Your task to perform on an android device: Show me popular games on the Play Store Image 0: 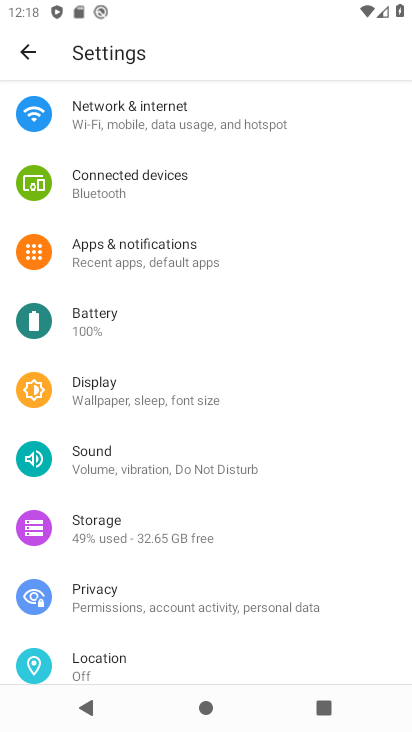
Step 0: drag from (282, 553) to (212, 223)
Your task to perform on an android device: Show me popular games on the Play Store Image 1: 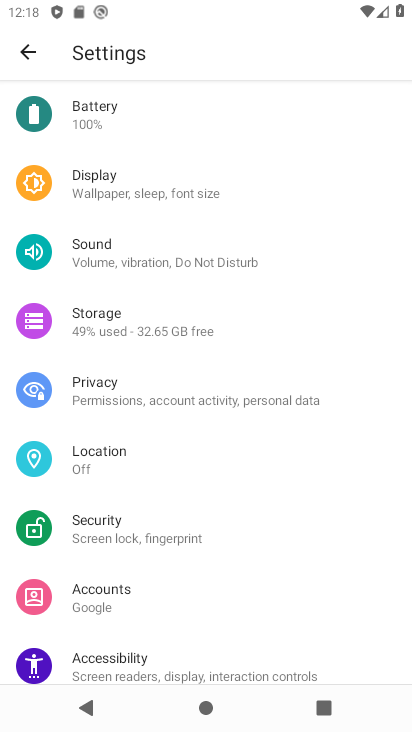
Step 1: press home button
Your task to perform on an android device: Show me popular games on the Play Store Image 2: 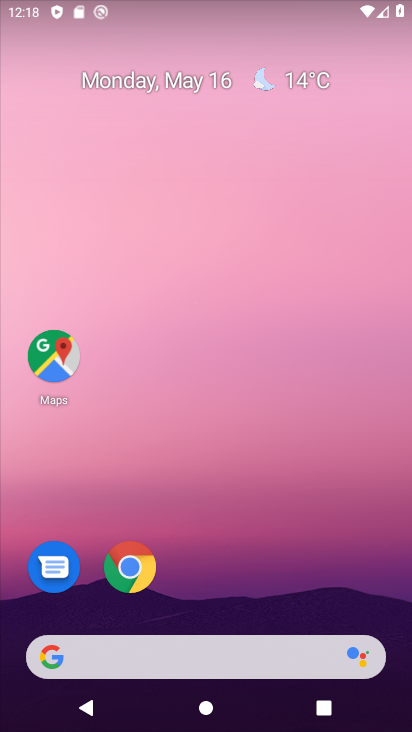
Step 2: drag from (263, 591) to (152, 182)
Your task to perform on an android device: Show me popular games on the Play Store Image 3: 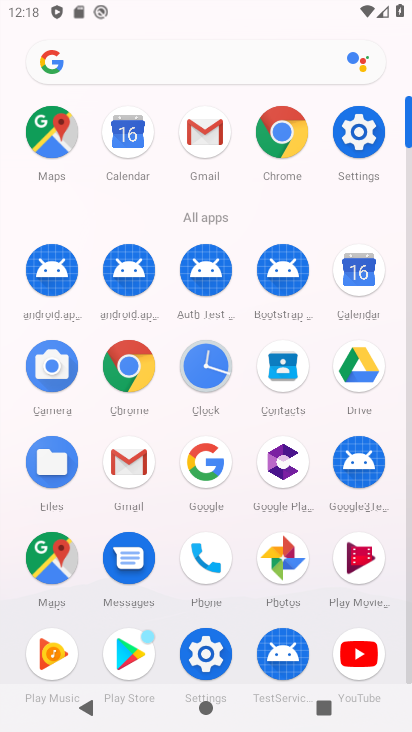
Step 3: drag from (232, 571) to (148, 263)
Your task to perform on an android device: Show me popular games on the Play Store Image 4: 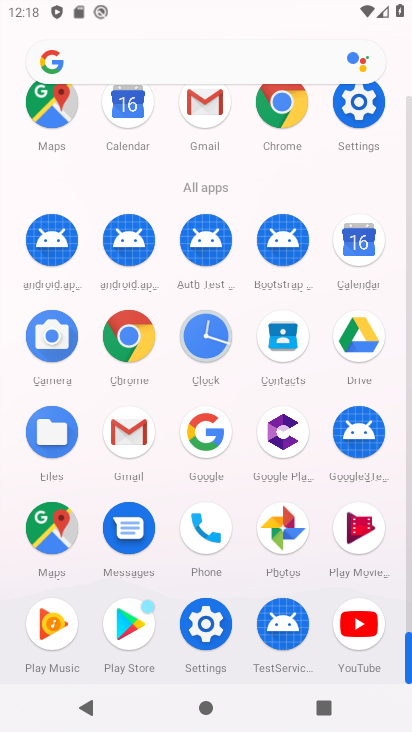
Step 4: click (126, 624)
Your task to perform on an android device: Show me popular games on the Play Store Image 5: 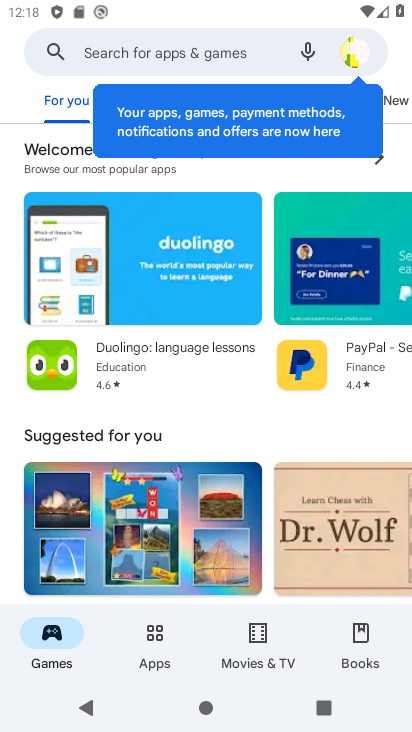
Step 5: click (157, 634)
Your task to perform on an android device: Show me popular games on the Play Store Image 6: 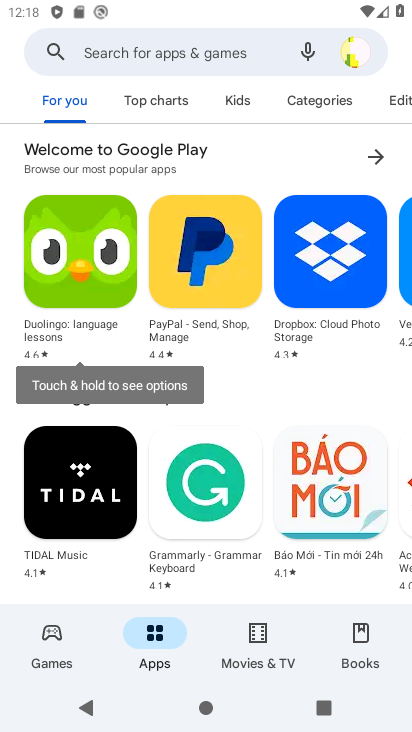
Step 6: click (36, 647)
Your task to perform on an android device: Show me popular games on the Play Store Image 7: 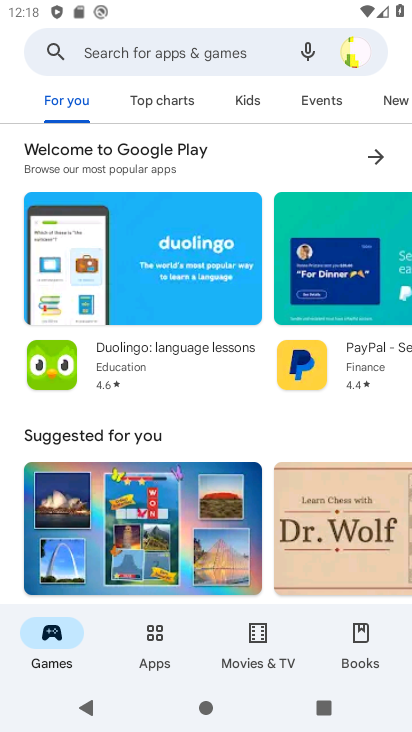
Step 7: task complete